Your task to perform on an android device: Open the stopwatch Image 0: 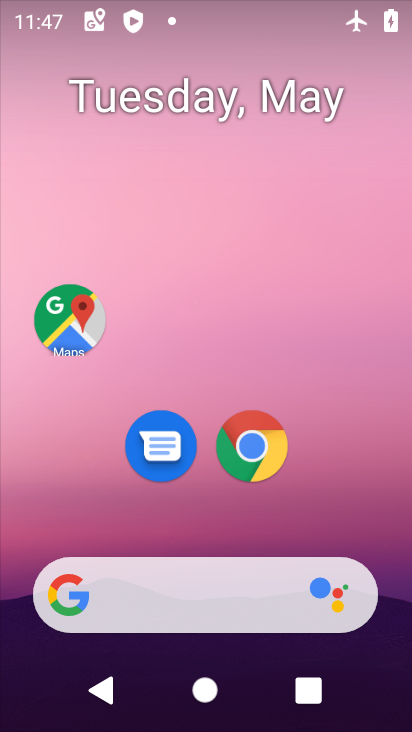
Step 0: drag from (247, 721) to (224, 123)
Your task to perform on an android device: Open the stopwatch Image 1: 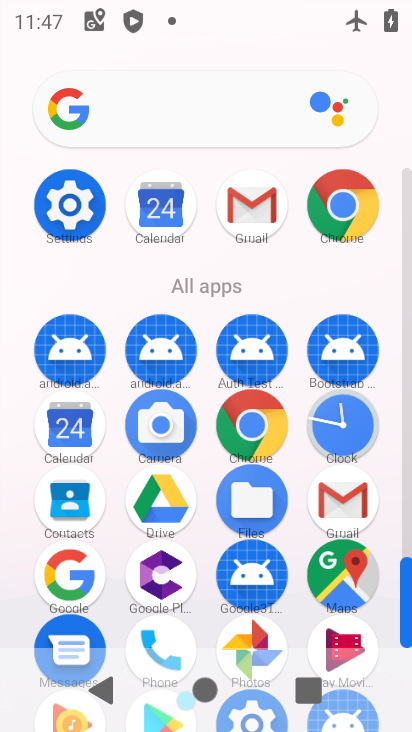
Step 1: click (336, 425)
Your task to perform on an android device: Open the stopwatch Image 2: 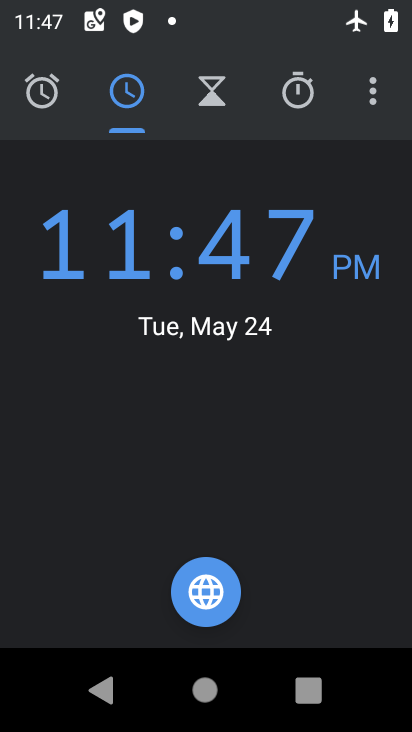
Step 2: click (295, 95)
Your task to perform on an android device: Open the stopwatch Image 3: 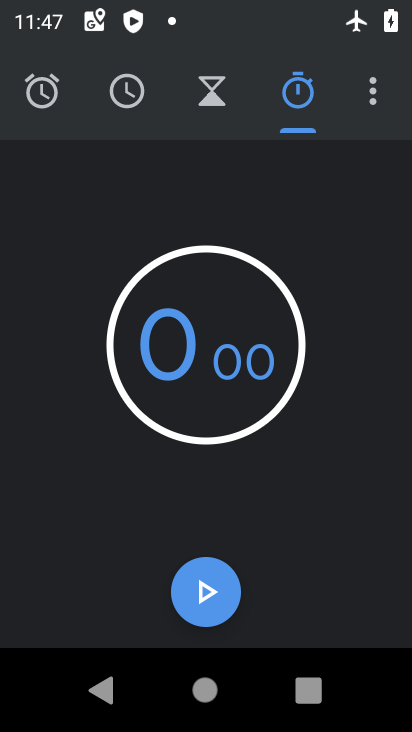
Step 3: task complete